Your task to perform on an android device: Open the stopwatch Image 0: 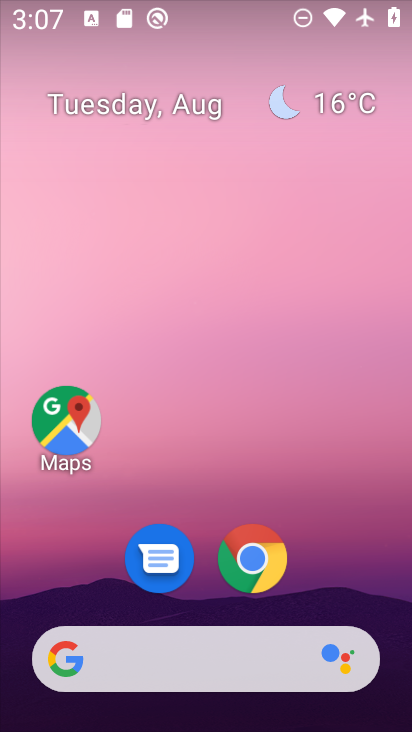
Step 0: drag from (205, 498) to (191, 6)
Your task to perform on an android device: Open the stopwatch Image 1: 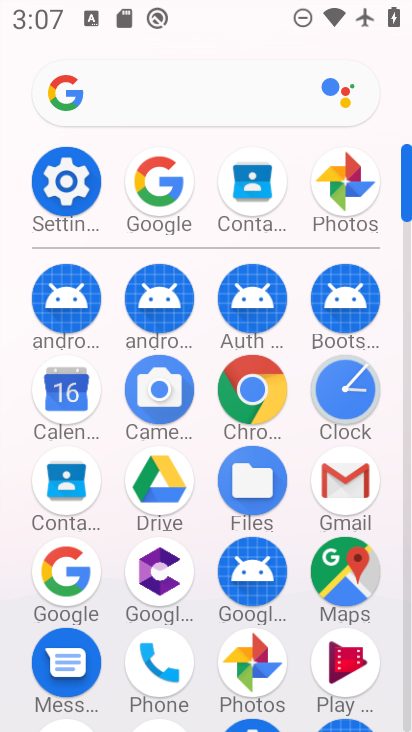
Step 1: click (341, 399)
Your task to perform on an android device: Open the stopwatch Image 2: 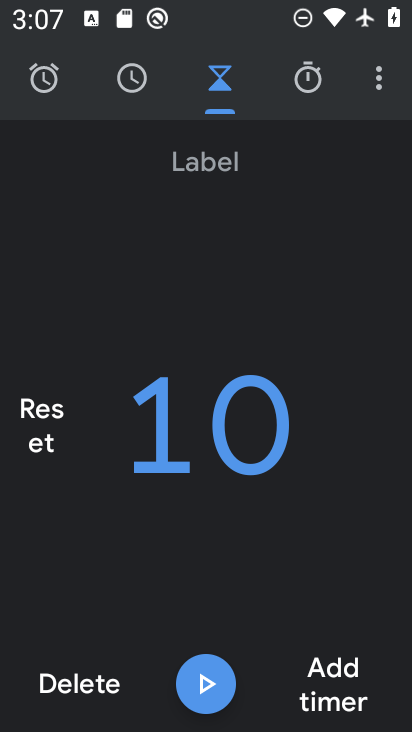
Step 2: click (314, 86)
Your task to perform on an android device: Open the stopwatch Image 3: 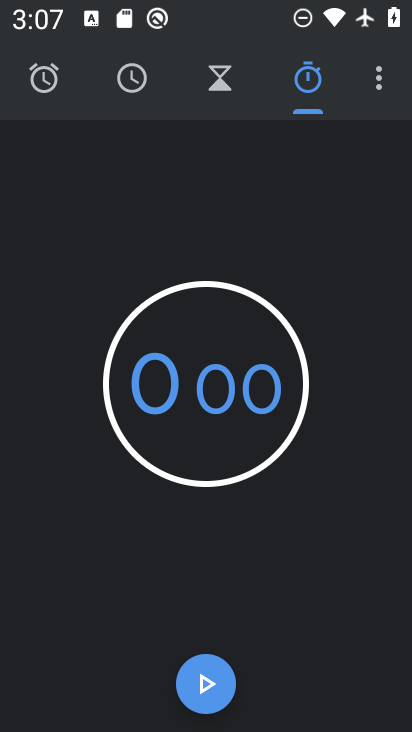
Step 3: task complete